Your task to perform on an android device: find which apps use the phone's location Image 0: 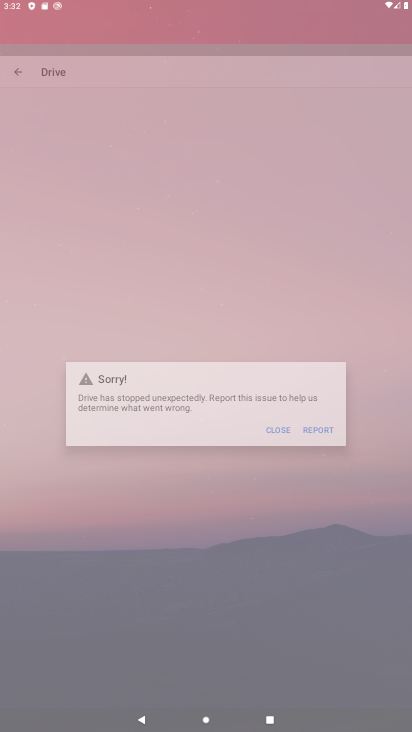
Step 0: press home button
Your task to perform on an android device: find which apps use the phone's location Image 1: 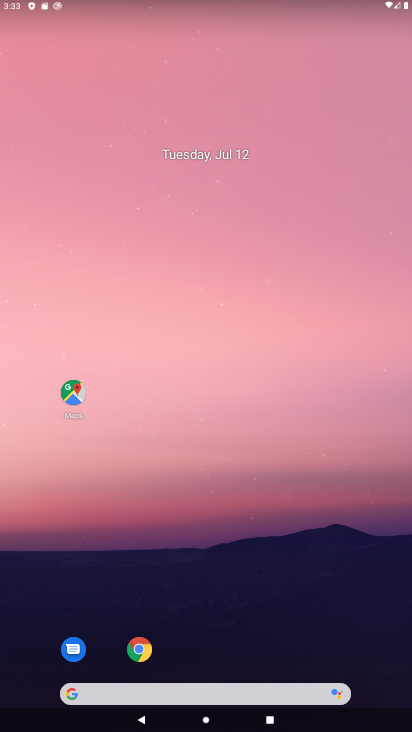
Step 1: drag from (223, 666) to (229, 79)
Your task to perform on an android device: find which apps use the phone's location Image 2: 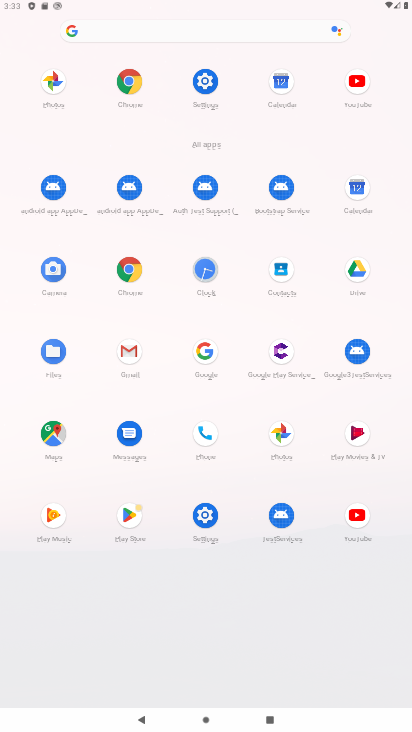
Step 2: click (205, 77)
Your task to perform on an android device: find which apps use the phone's location Image 3: 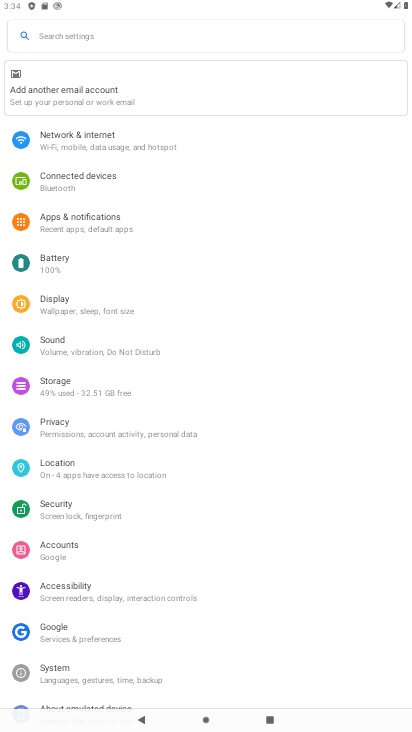
Step 3: click (84, 455)
Your task to perform on an android device: find which apps use the phone's location Image 4: 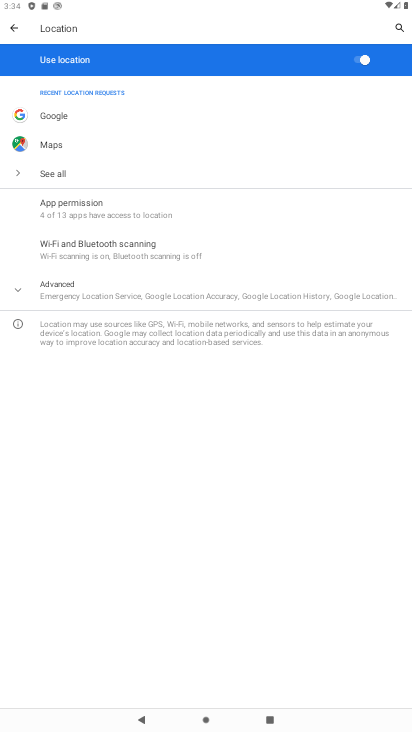
Step 4: click (69, 208)
Your task to perform on an android device: find which apps use the phone's location Image 5: 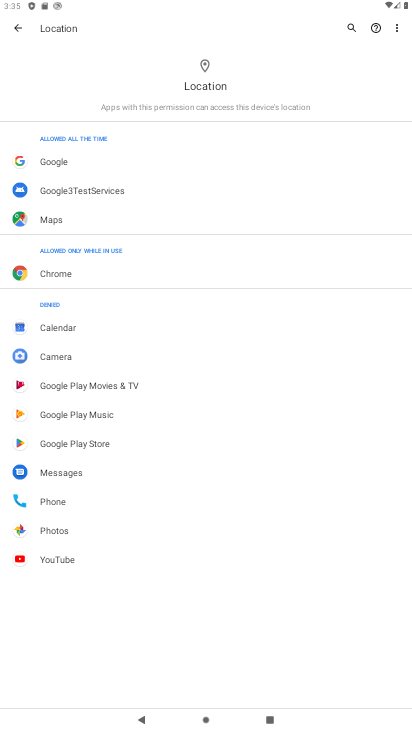
Step 5: task complete